Your task to perform on an android device: What's the weather? Image 0: 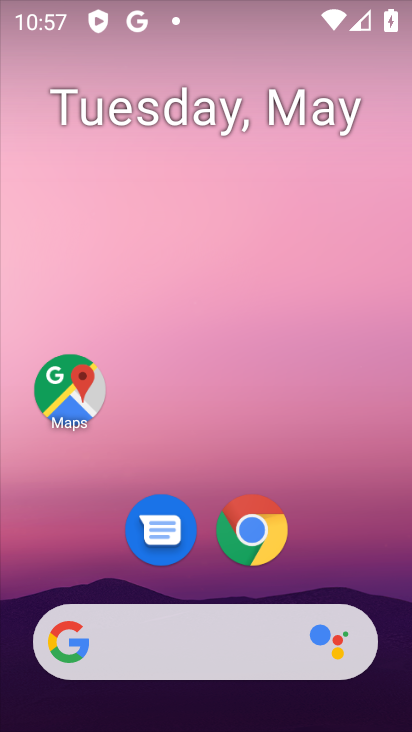
Step 0: click (260, 529)
Your task to perform on an android device: What's the weather? Image 1: 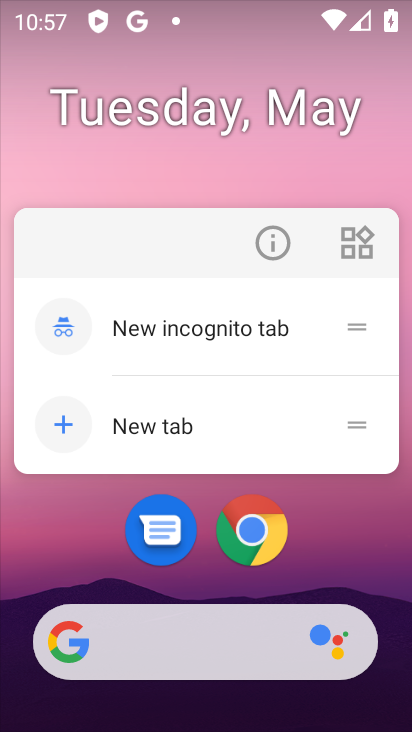
Step 1: click (255, 530)
Your task to perform on an android device: What's the weather? Image 2: 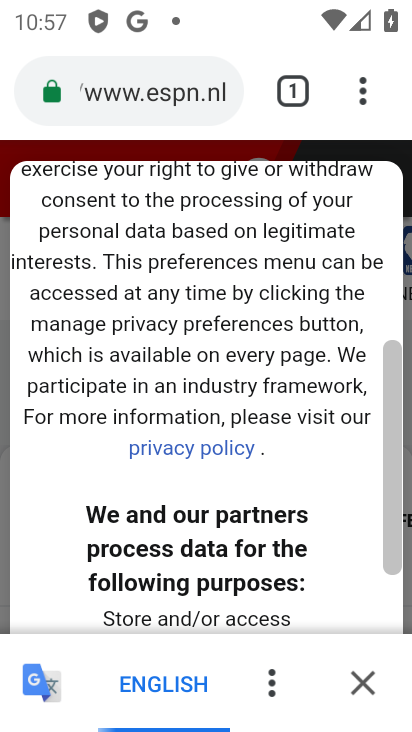
Step 2: click (179, 88)
Your task to perform on an android device: What's the weather? Image 3: 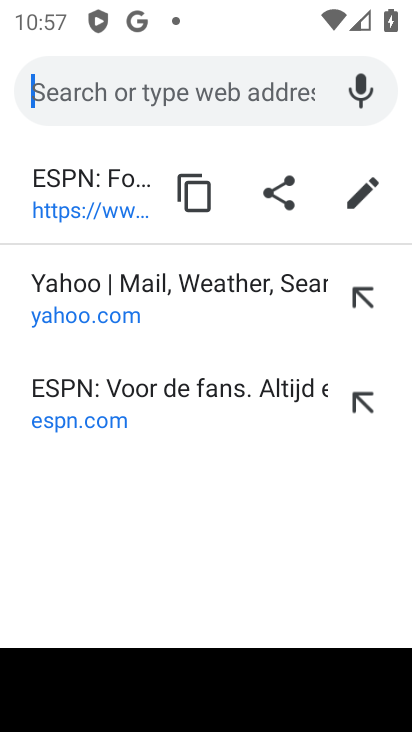
Step 3: type "weather"
Your task to perform on an android device: What's the weather? Image 4: 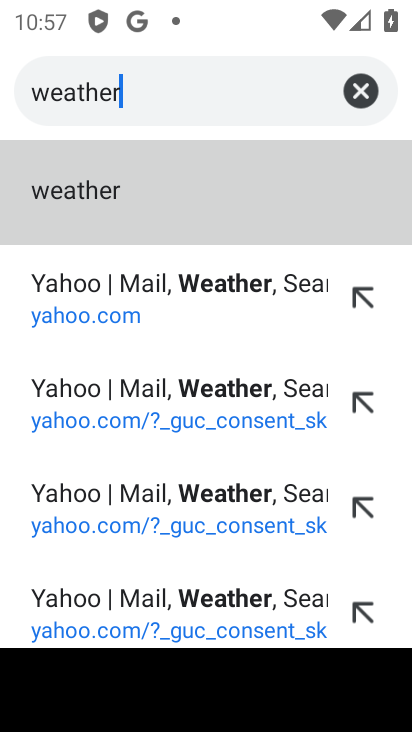
Step 4: click (61, 202)
Your task to perform on an android device: What's the weather? Image 5: 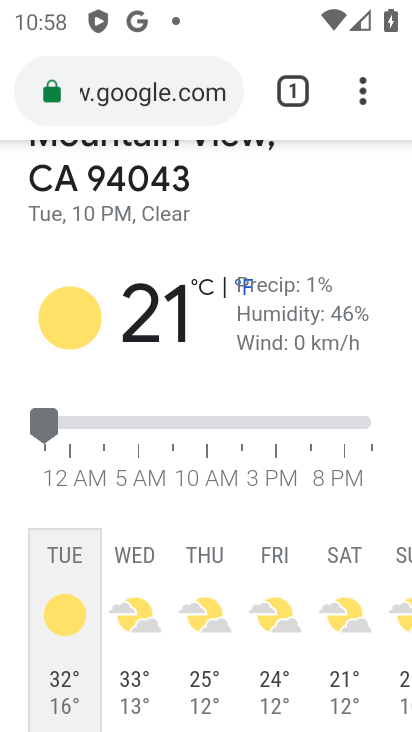
Step 5: task complete